Your task to perform on an android device: delete the emails in spam in the gmail app Image 0: 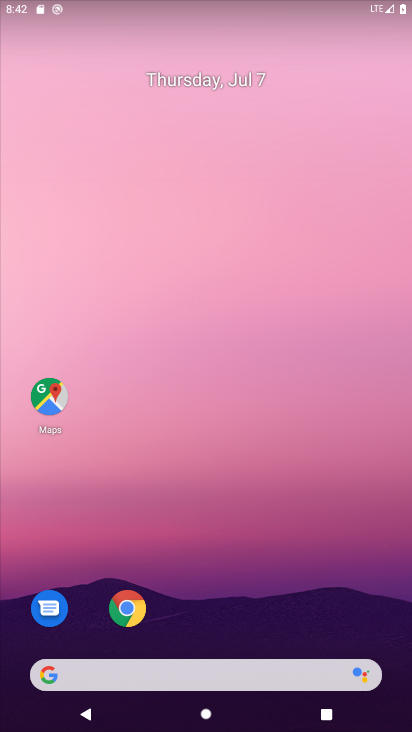
Step 0: drag from (372, 615) to (365, 154)
Your task to perform on an android device: delete the emails in spam in the gmail app Image 1: 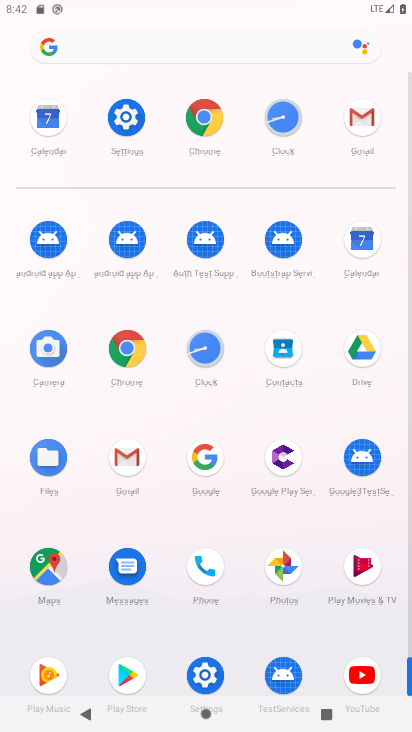
Step 1: click (127, 459)
Your task to perform on an android device: delete the emails in spam in the gmail app Image 2: 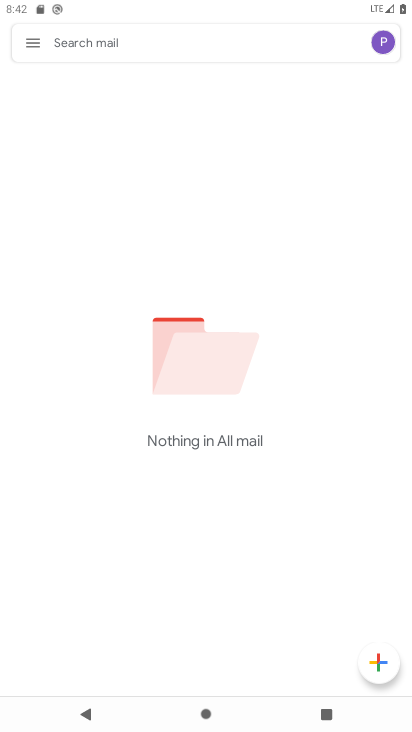
Step 2: click (36, 36)
Your task to perform on an android device: delete the emails in spam in the gmail app Image 3: 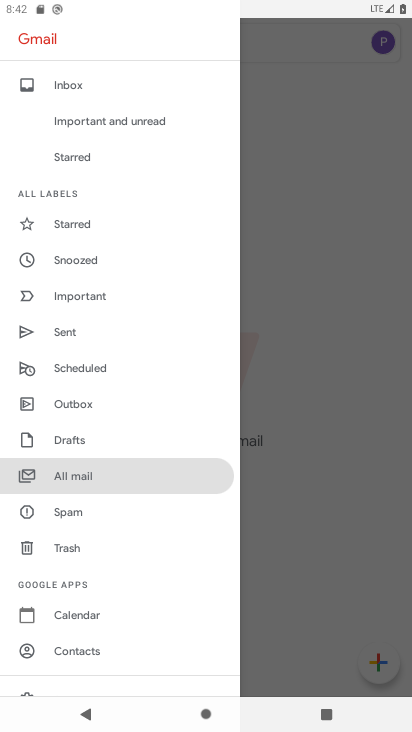
Step 3: drag from (167, 344) to (178, 245)
Your task to perform on an android device: delete the emails in spam in the gmail app Image 4: 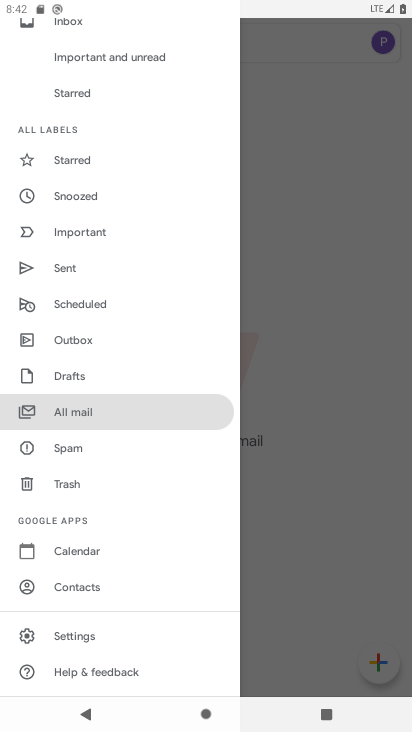
Step 4: drag from (178, 436) to (171, 272)
Your task to perform on an android device: delete the emails in spam in the gmail app Image 5: 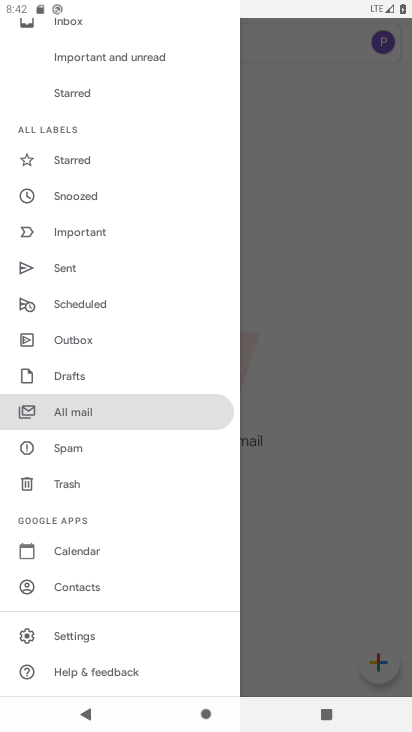
Step 5: click (83, 442)
Your task to perform on an android device: delete the emails in spam in the gmail app Image 6: 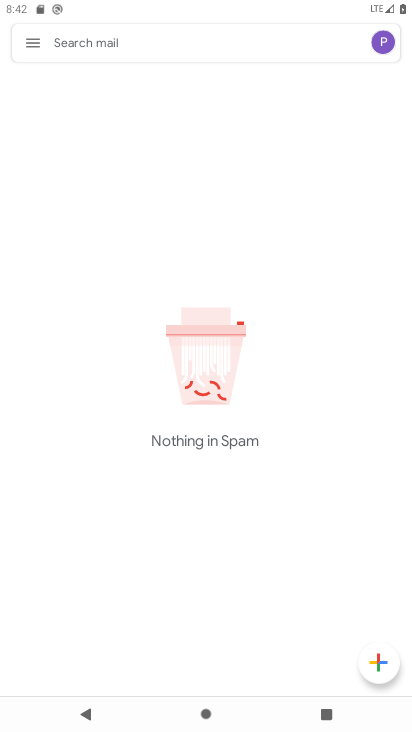
Step 6: task complete